Your task to perform on an android device: Open location settings Image 0: 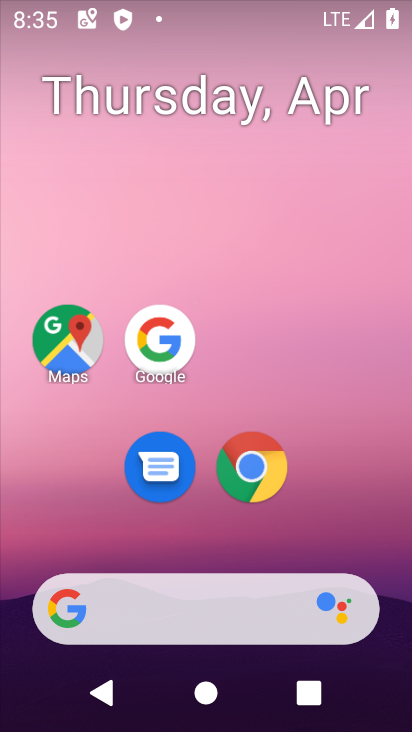
Step 0: drag from (165, 612) to (171, 58)
Your task to perform on an android device: Open location settings Image 1: 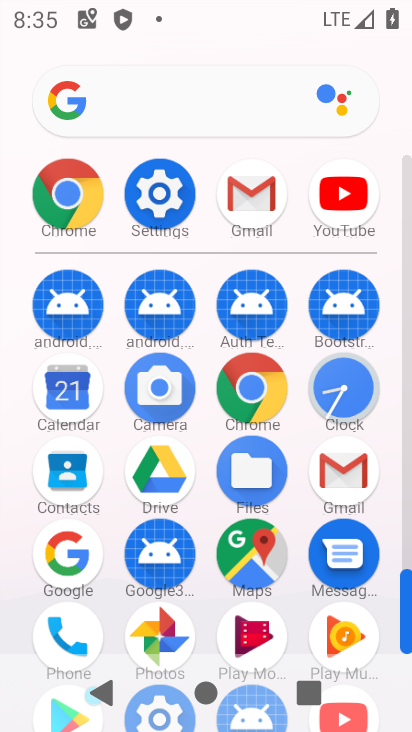
Step 1: click (69, 376)
Your task to perform on an android device: Open location settings Image 2: 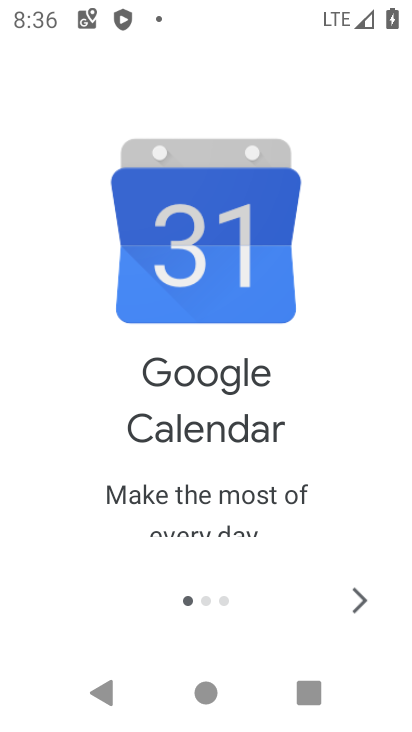
Step 2: press home button
Your task to perform on an android device: Open location settings Image 3: 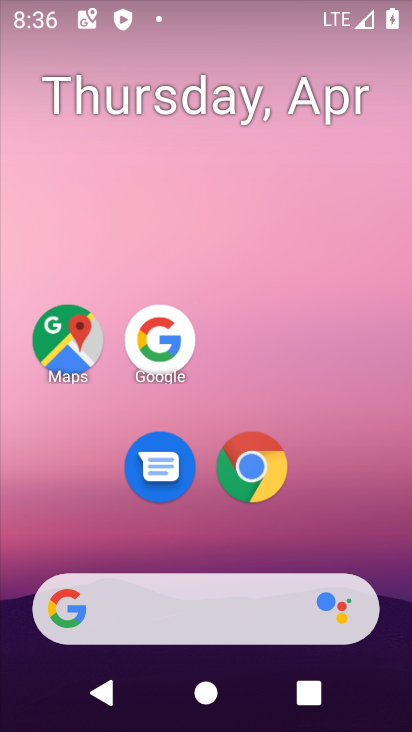
Step 3: drag from (184, 592) to (207, 95)
Your task to perform on an android device: Open location settings Image 4: 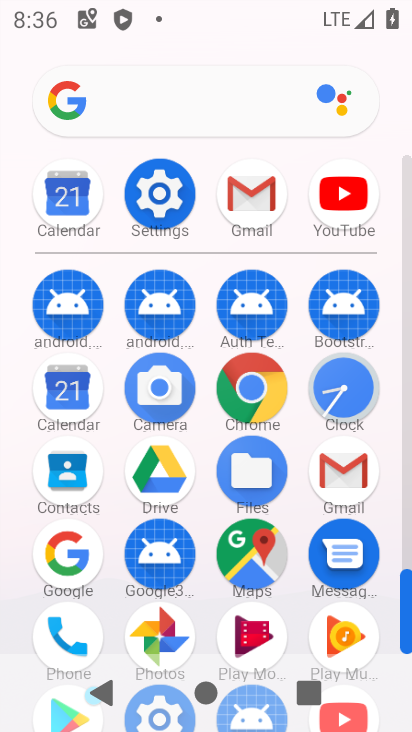
Step 4: click (169, 188)
Your task to perform on an android device: Open location settings Image 5: 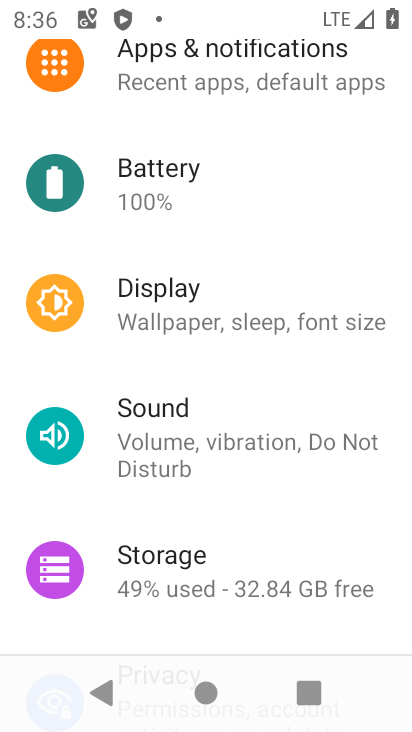
Step 5: drag from (199, 498) to (226, 70)
Your task to perform on an android device: Open location settings Image 6: 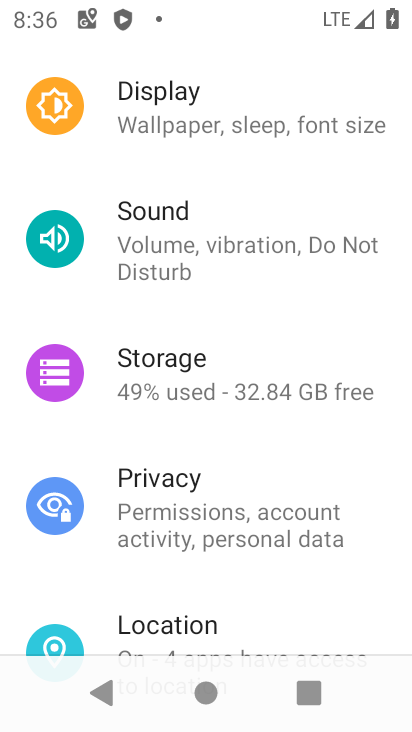
Step 6: click (187, 610)
Your task to perform on an android device: Open location settings Image 7: 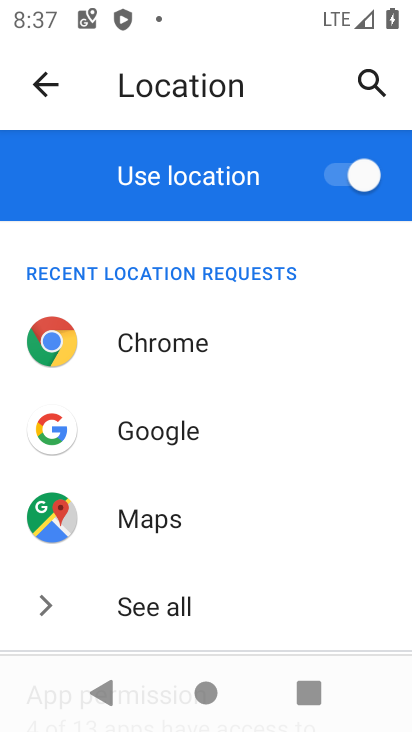
Step 7: task complete